Your task to perform on an android device: find photos in the google photos app Image 0: 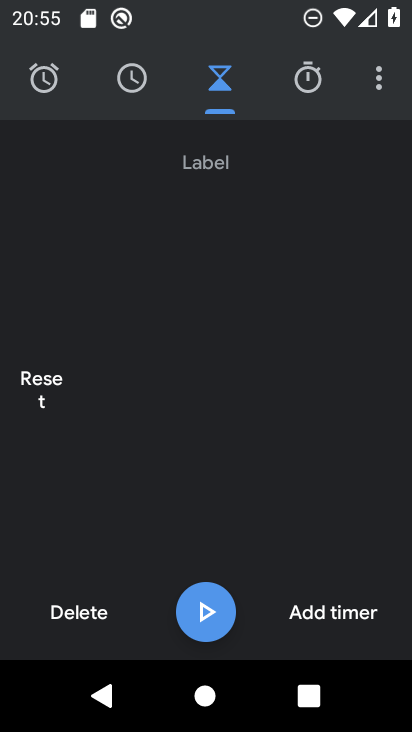
Step 0: press home button
Your task to perform on an android device: find photos in the google photos app Image 1: 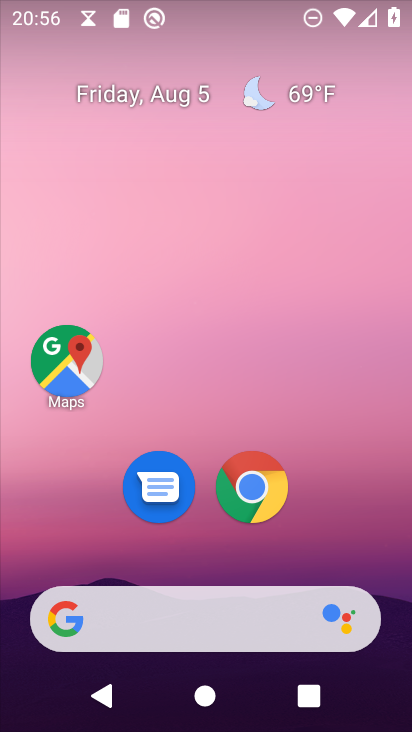
Step 1: drag from (205, 623) to (238, 145)
Your task to perform on an android device: find photos in the google photos app Image 2: 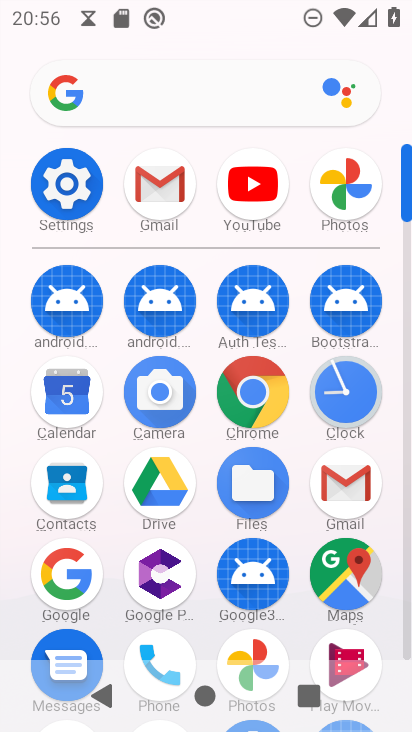
Step 2: click (353, 187)
Your task to perform on an android device: find photos in the google photos app Image 3: 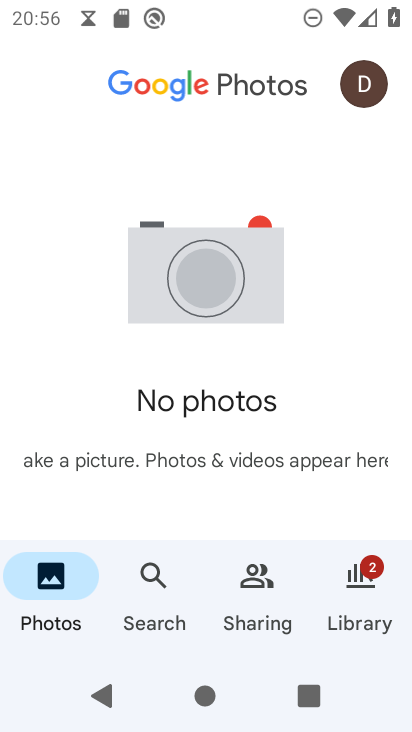
Step 3: task complete